Your task to perform on an android device: turn on the 12-hour format for clock Image 0: 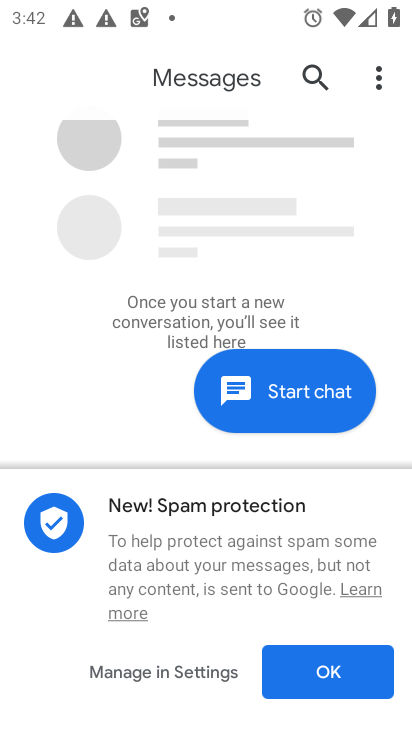
Step 0: press home button
Your task to perform on an android device: turn on the 12-hour format for clock Image 1: 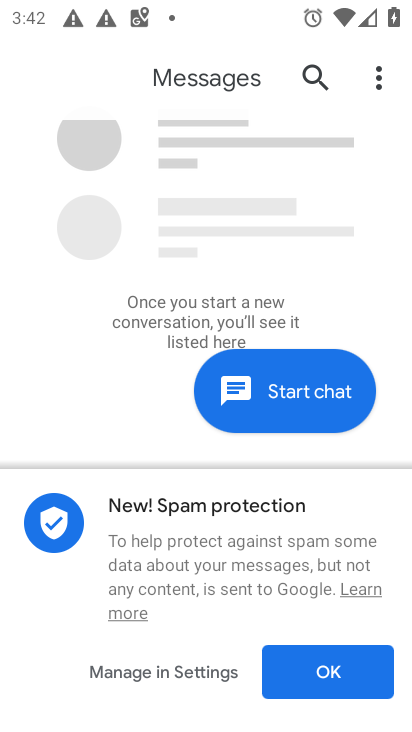
Step 1: press home button
Your task to perform on an android device: turn on the 12-hour format for clock Image 2: 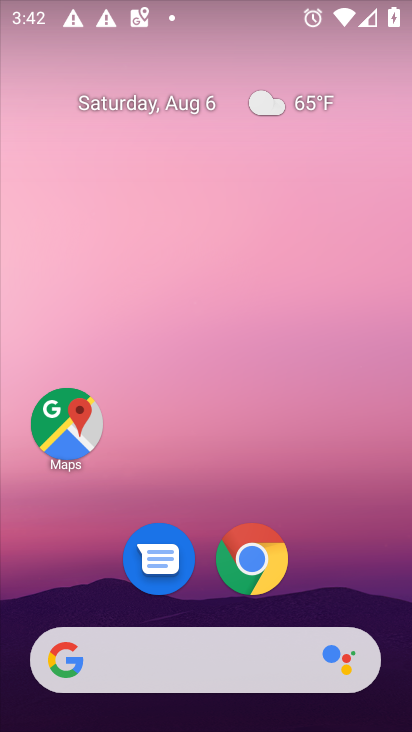
Step 2: drag from (277, 470) to (312, 0)
Your task to perform on an android device: turn on the 12-hour format for clock Image 3: 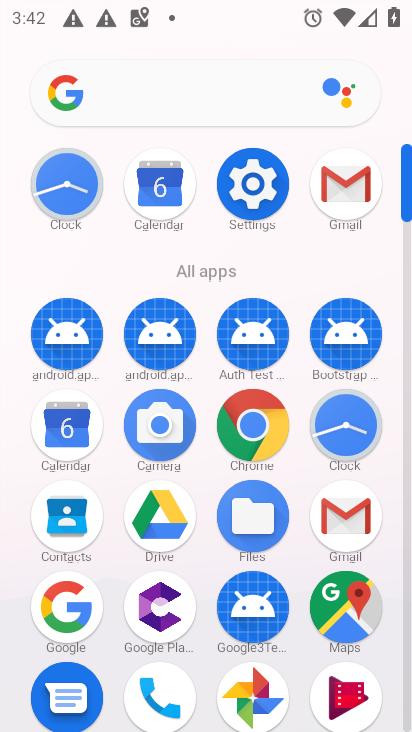
Step 3: click (75, 170)
Your task to perform on an android device: turn on the 12-hour format for clock Image 4: 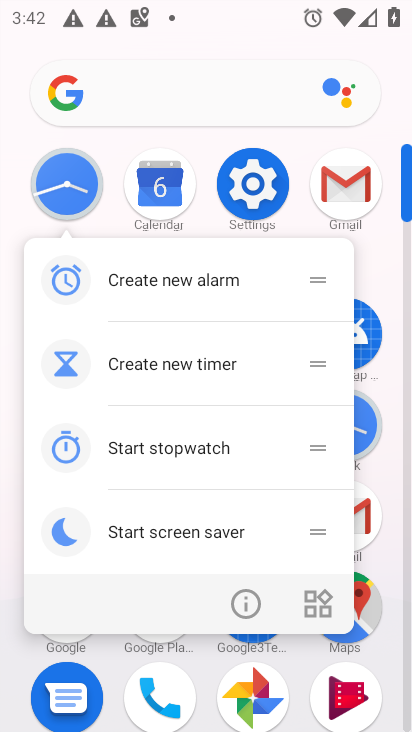
Step 4: click (75, 169)
Your task to perform on an android device: turn on the 12-hour format for clock Image 5: 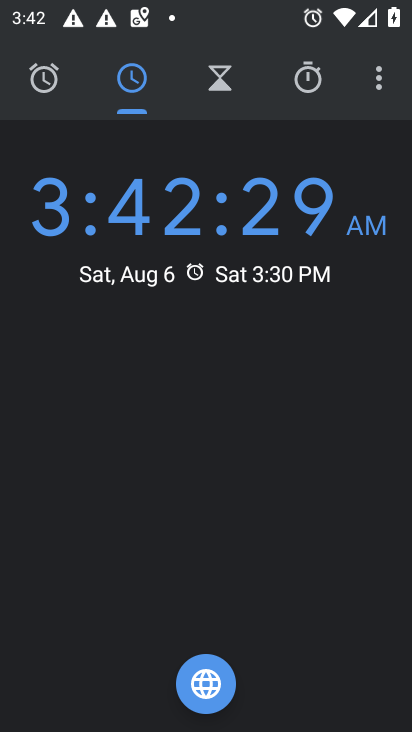
Step 5: click (383, 78)
Your task to perform on an android device: turn on the 12-hour format for clock Image 6: 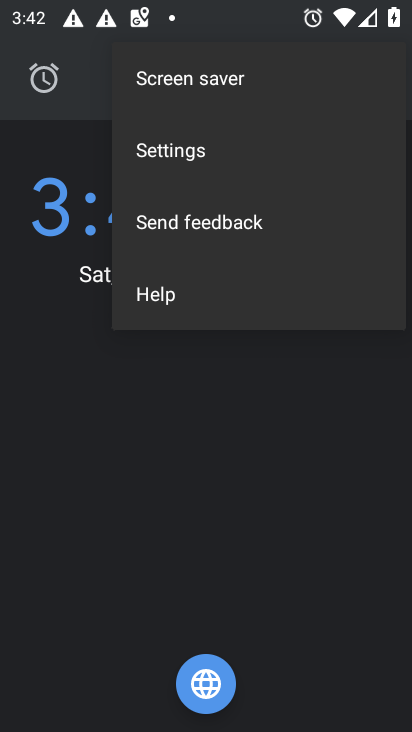
Step 6: click (221, 156)
Your task to perform on an android device: turn on the 12-hour format for clock Image 7: 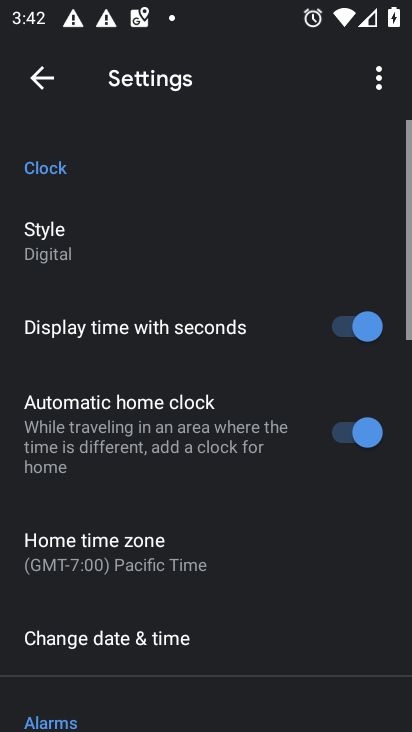
Step 7: click (245, 645)
Your task to perform on an android device: turn on the 12-hour format for clock Image 8: 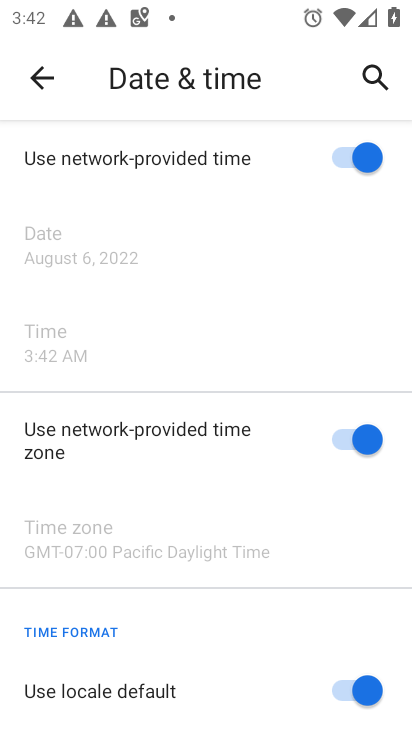
Step 8: task complete